Your task to perform on an android device: turn off airplane mode Image 0: 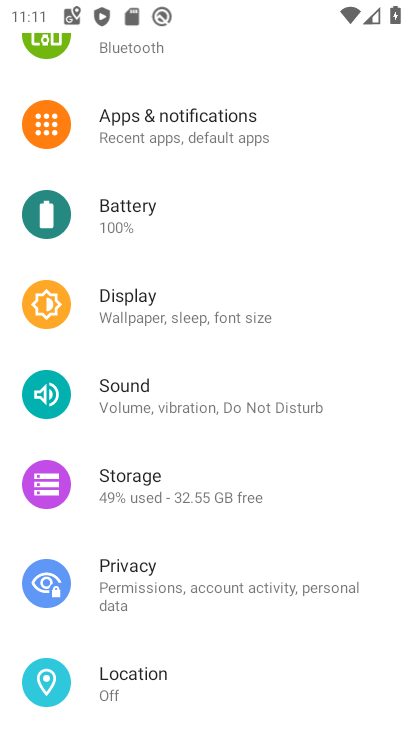
Step 0: drag from (182, 96) to (228, 519)
Your task to perform on an android device: turn off airplane mode Image 1: 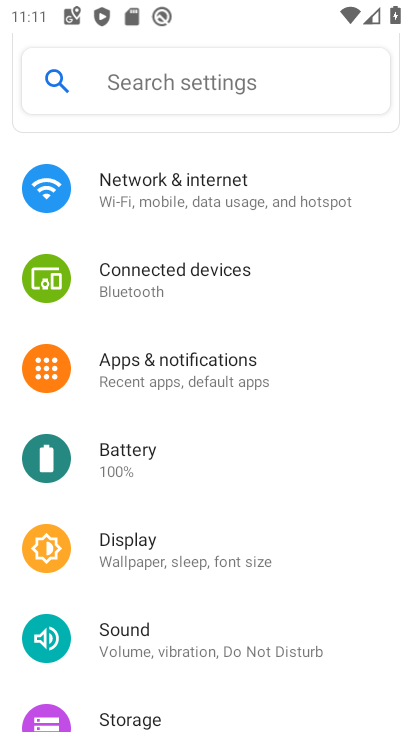
Step 1: click (139, 190)
Your task to perform on an android device: turn off airplane mode Image 2: 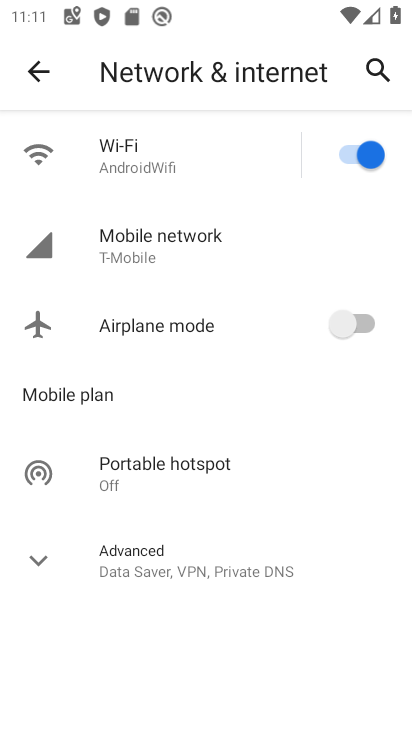
Step 2: task complete